Your task to perform on an android device: turn off location Image 0: 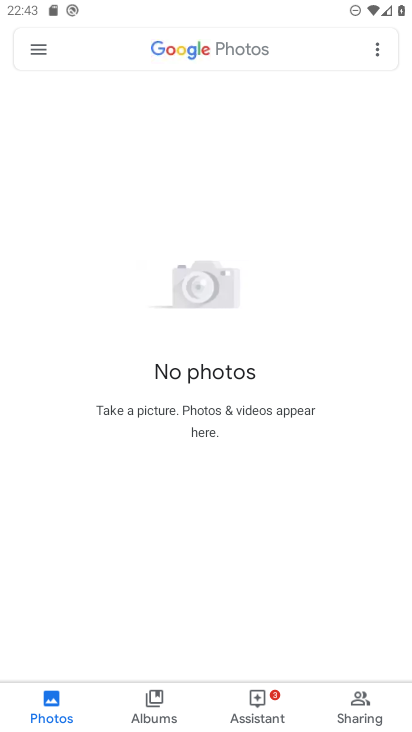
Step 0: click (115, 687)
Your task to perform on an android device: turn off location Image 1: 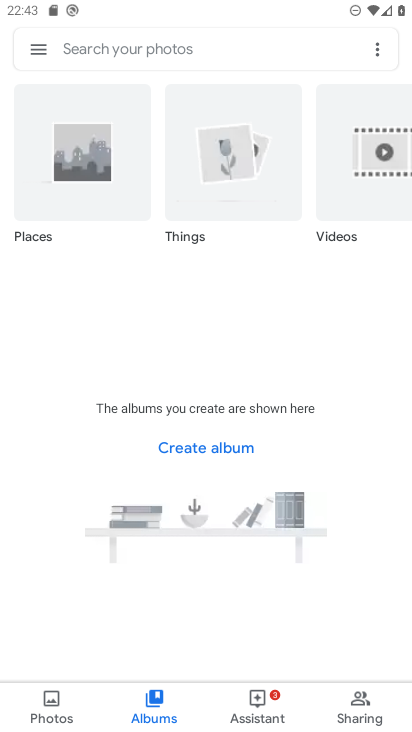
Step 1: press home button
Your task to perform on an android device: turn off location Image 2: 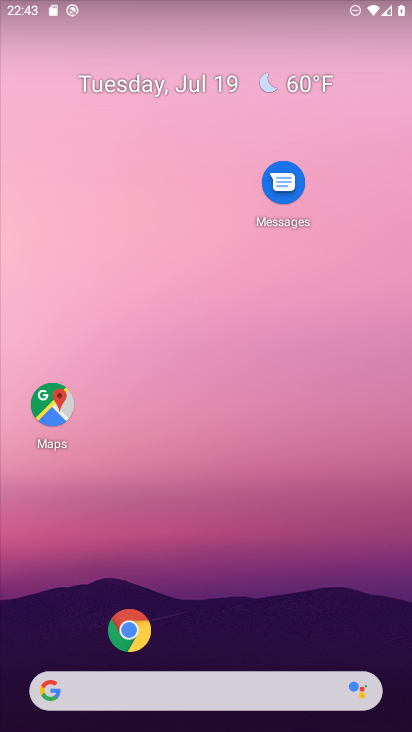
Step 2: drag from (39, 618) to (251, 70)
Your task to perform on an android device: turn off location Image 3: 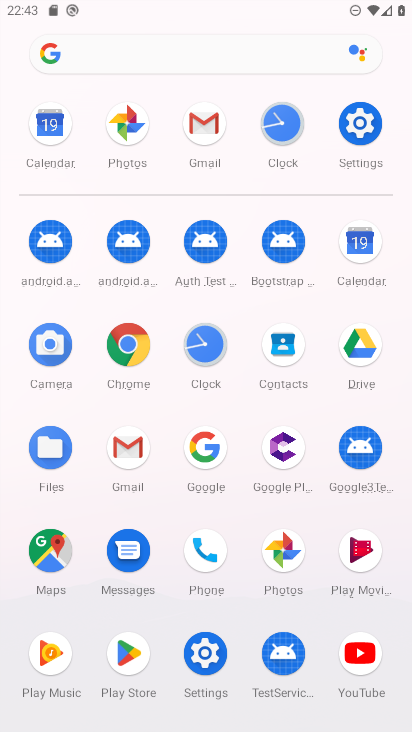
Step 3: click (192, 671)
Your task to perform on an android device: turn off location Image 4: 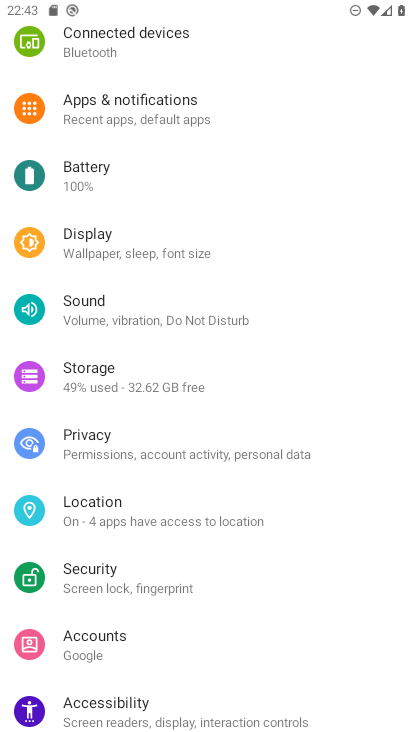
Step 4: click (97, 518)
Your task to perform on an android device: turn off location Image 5: 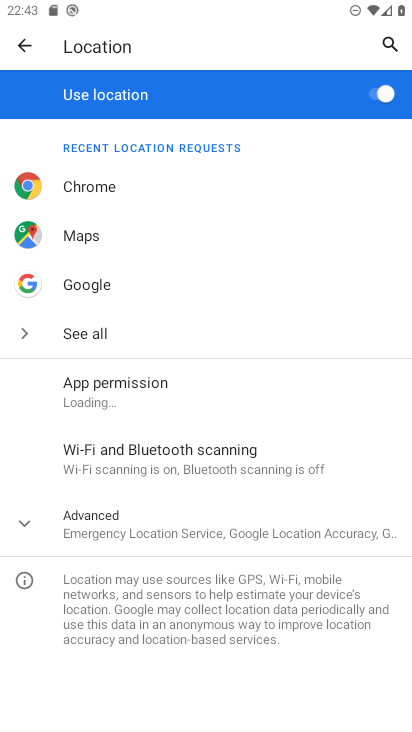
Step 5: click (383, 96)
Your task to perform on an android device: turn off location Image 6: 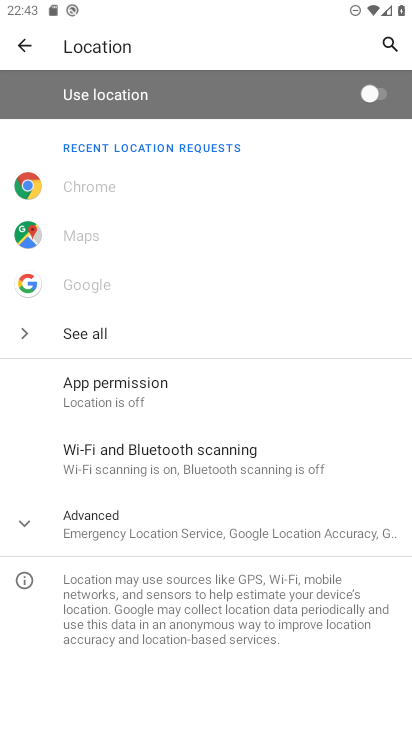
Step 6: task complete